Your task to perform on an android device: change timer sound Image 0: 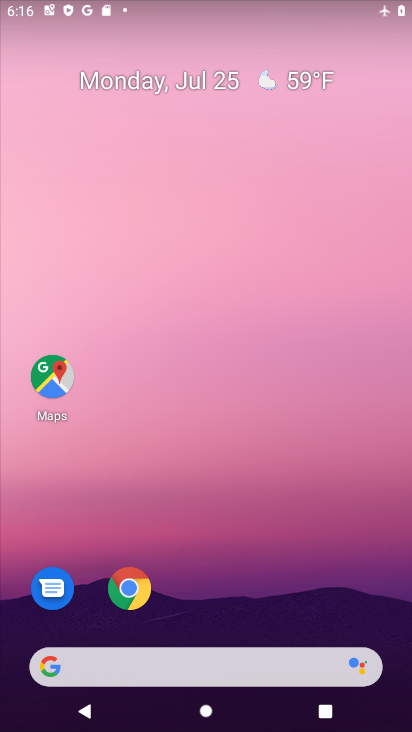
Step 0: drag from (277, 477) to (261, 30)
Your task to perform on an android device: change timer sound Image 1: 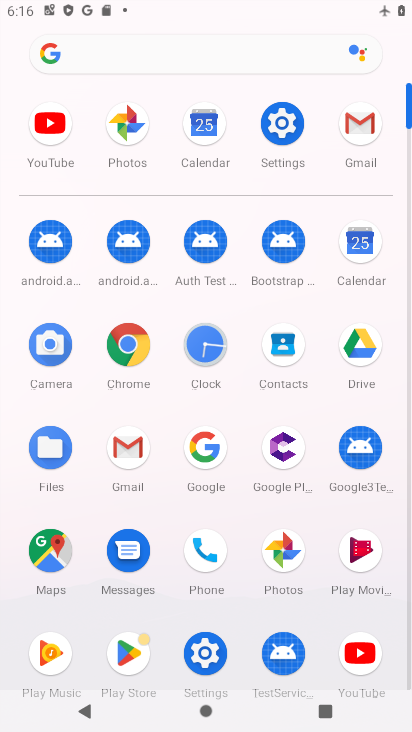
Step 1: click (207, 650)
Your task to perform on an android device: change timer sound Image 2: 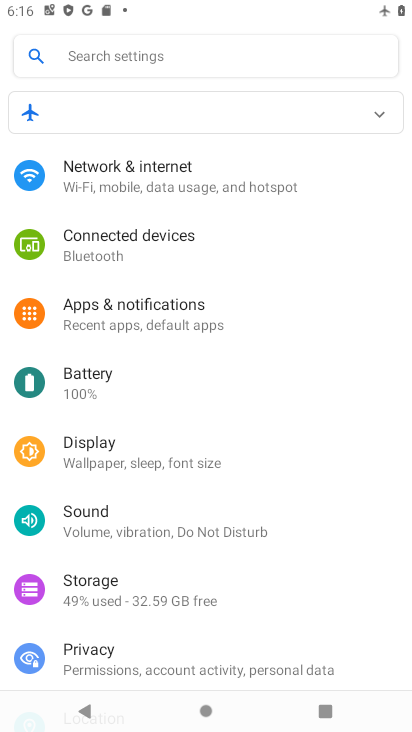
Step 2: click (110, 523)
Your task to perform on an android device: change timer sound Image 3: 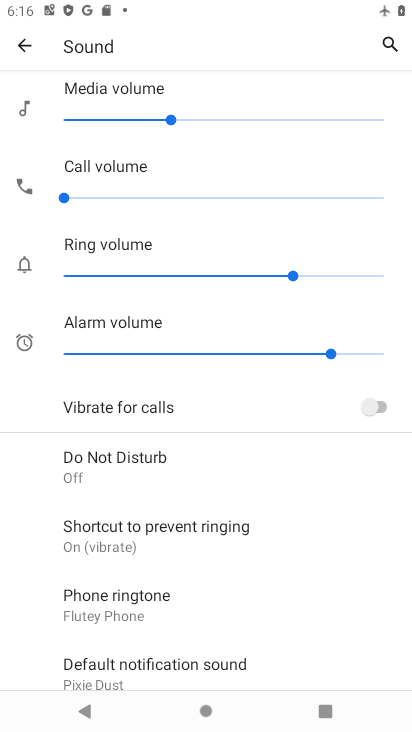
Step 3: task complete